Your task to perform on an android device: move a message to another label in the gmail app Image 0: 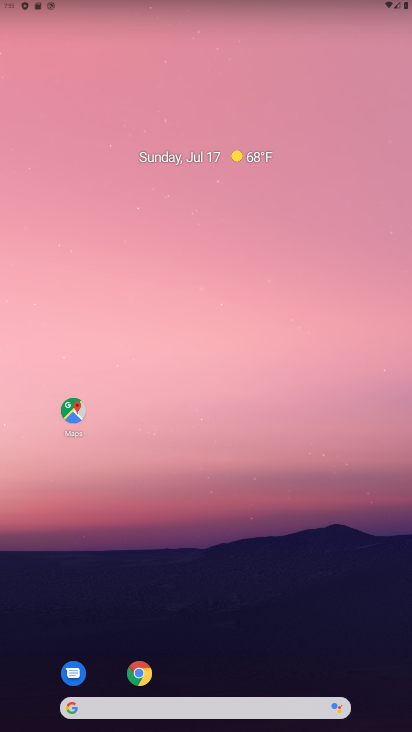
Step 0: drag from (318, 713) to (41, 84)
Your task to perform on an android device: move a message to another label in the gmail app Image 1: 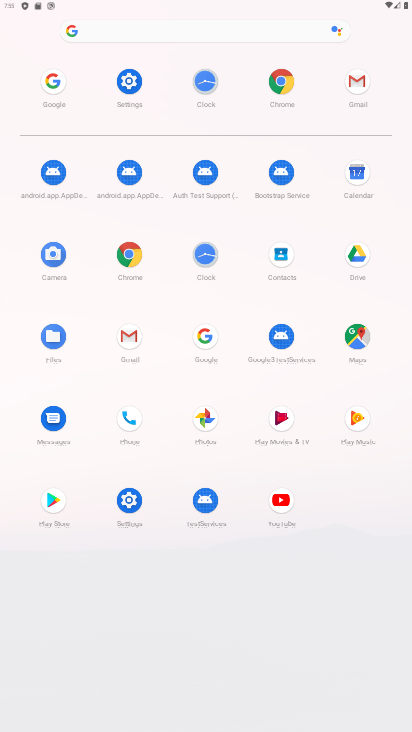
Step 1: click (354, 77)
Your task to perform on an android device: move a message to another label in the gmail app Image 2: 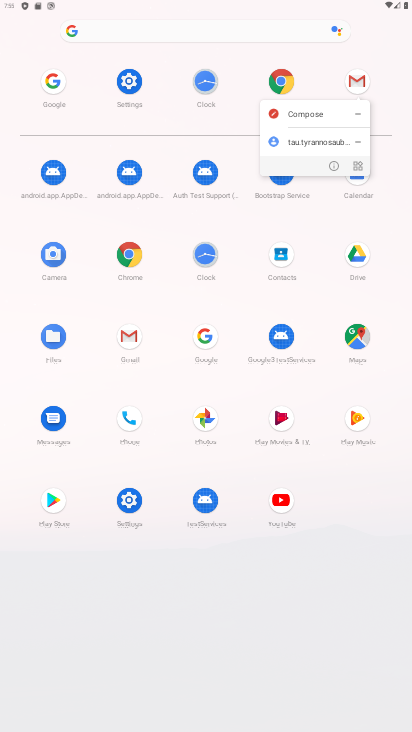
Step 2: click (353, 79)
Your task to perform on an android device: move a message to another label in the gmail app Image 3: 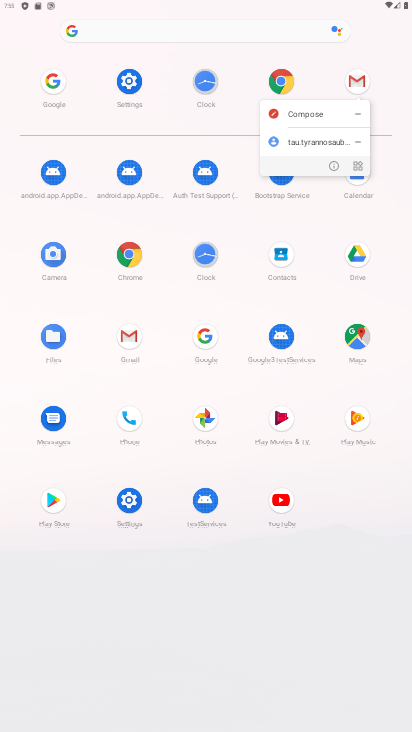
Step 3: click (353, 79)
Your task to perform on an android device: move a message to another label in the gmail app Image 4: 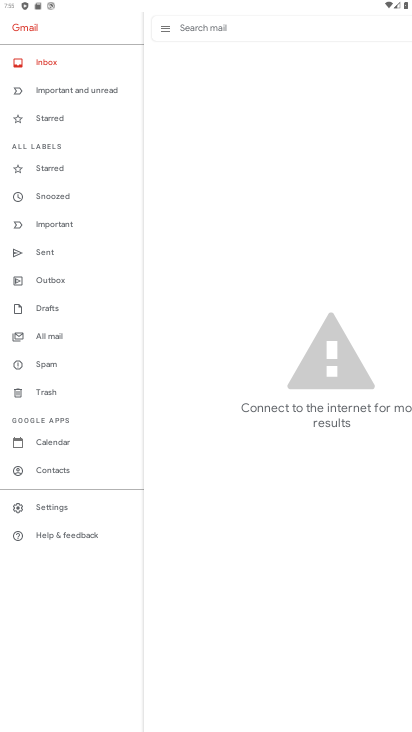
Step 4: click (51, 55)
Your task to perform on an android device: move a message to another label in the gmail app Image 5: 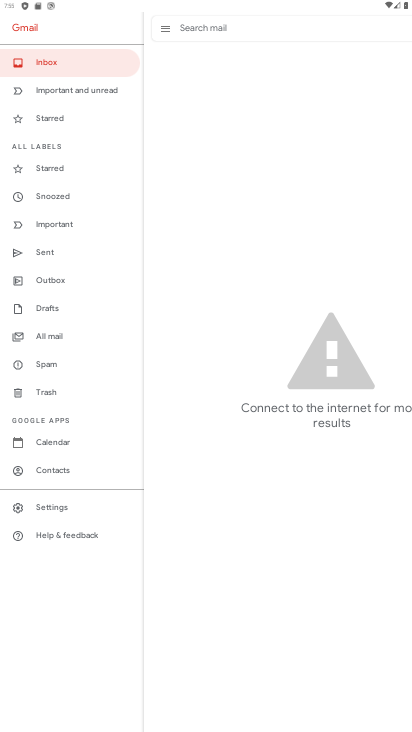
Step 5: task complete